Your task to perform on an android device: turn on bluetooth scan Image 0: 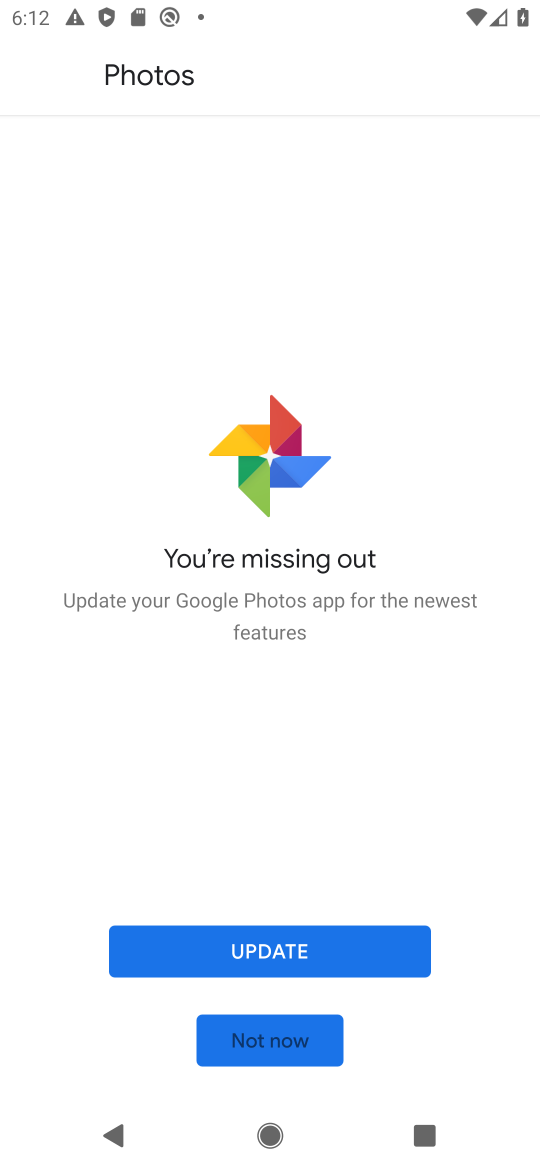
Step 0: press home button
Your task to perform on an android device: turn on bluetooth scan Image 1: 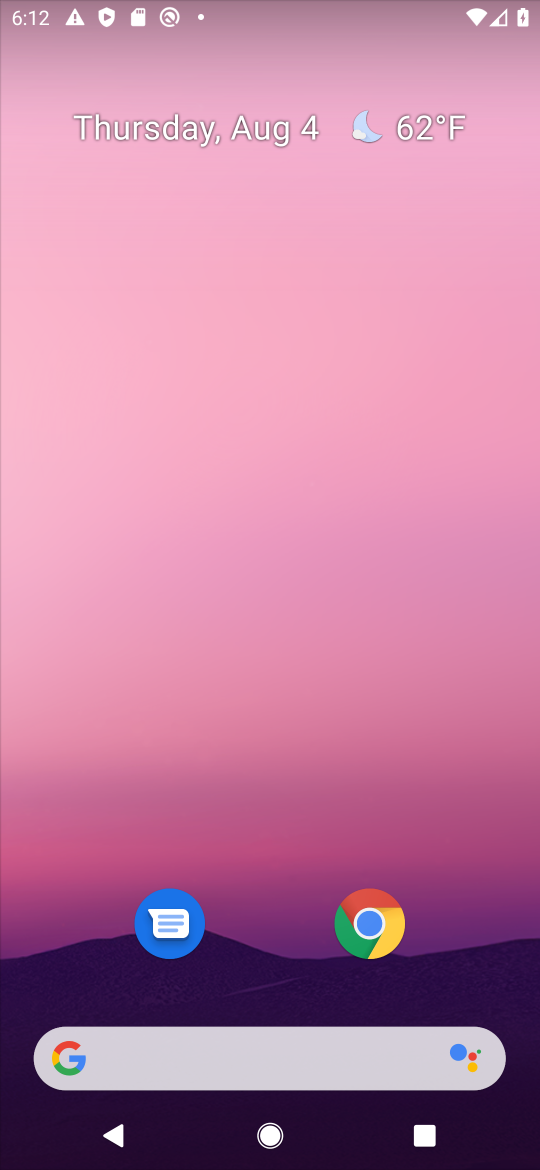
Step 1: drag from (460, 982) to (388, 317)
Your task to perform on an android device: turn on bluetooth scan Image 2: 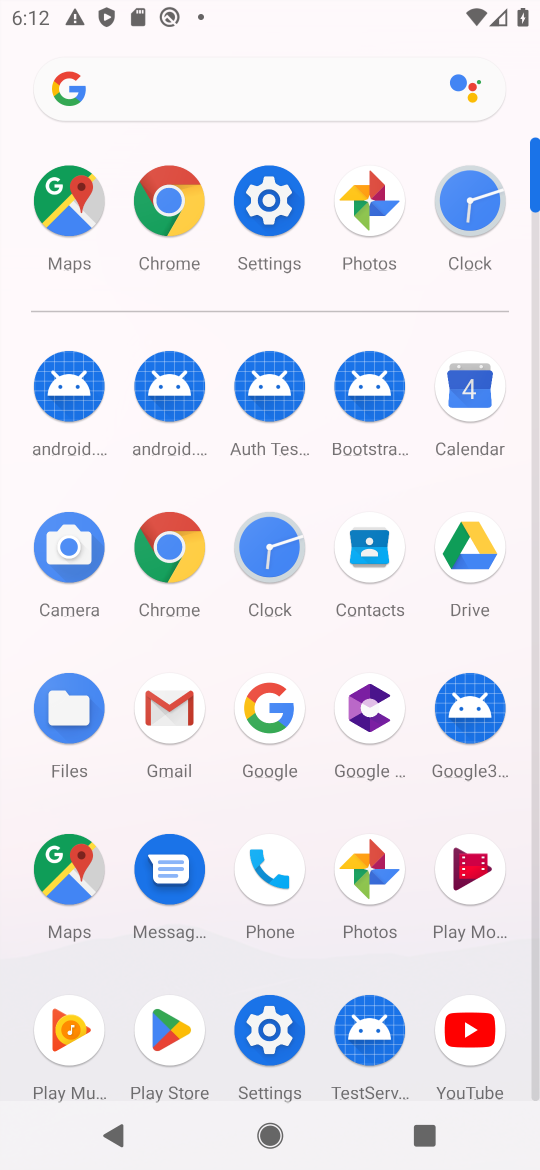
Step 2: click (287, 1019)
Your task to perform on an android device: turn on bluetooth scan Image 3: 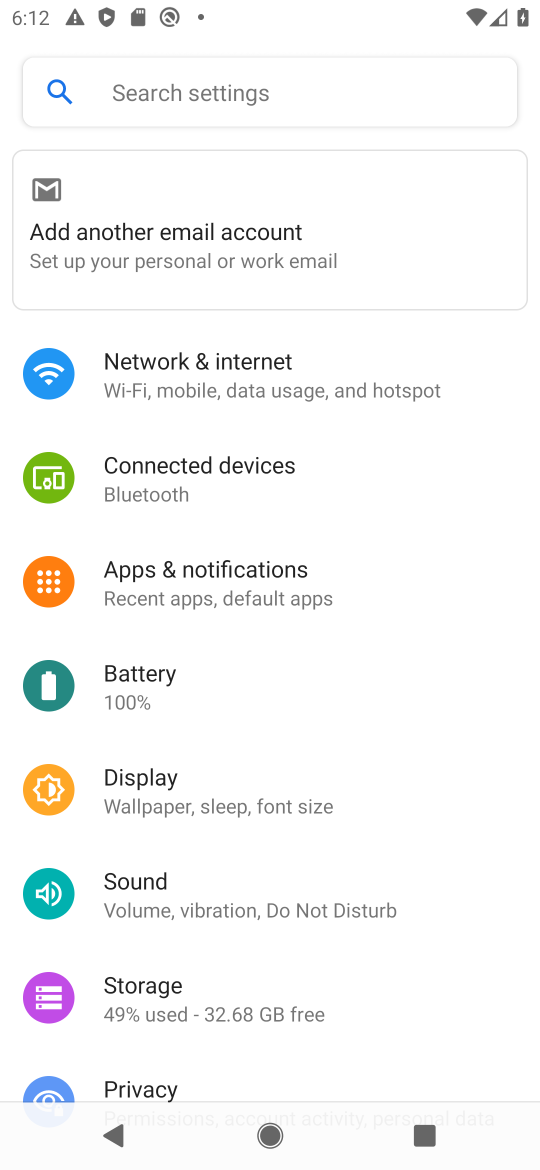
Step 3: drag from (373, 973) to (226, 526)
Your task to perform on an android device: turn on bluetooth scan Image 4: 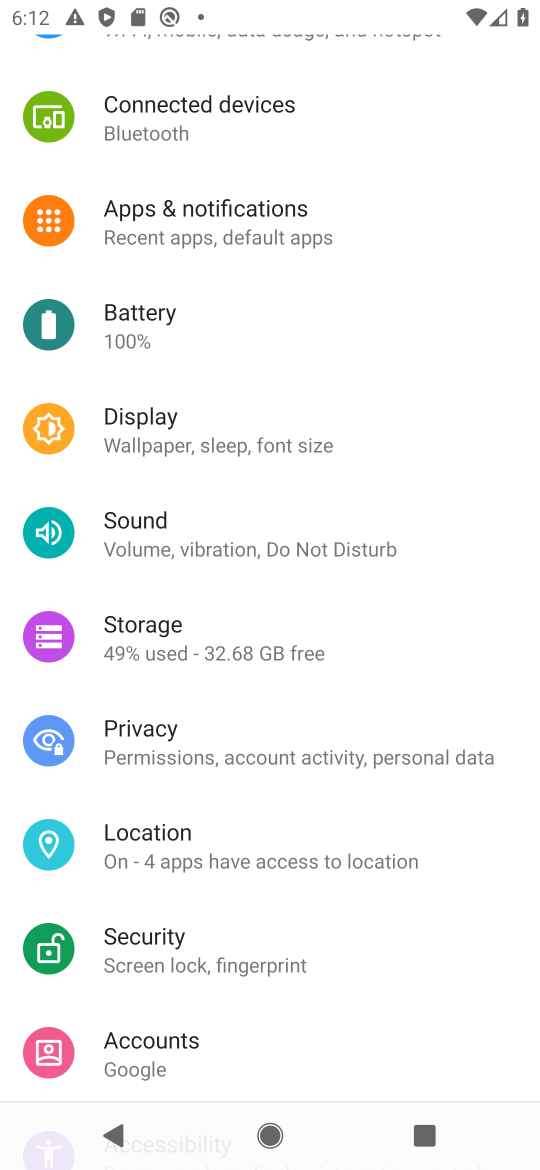
Step 4: click (331, 865)
Your task to perform on an android device: turn on bluetooth scan Image 5: 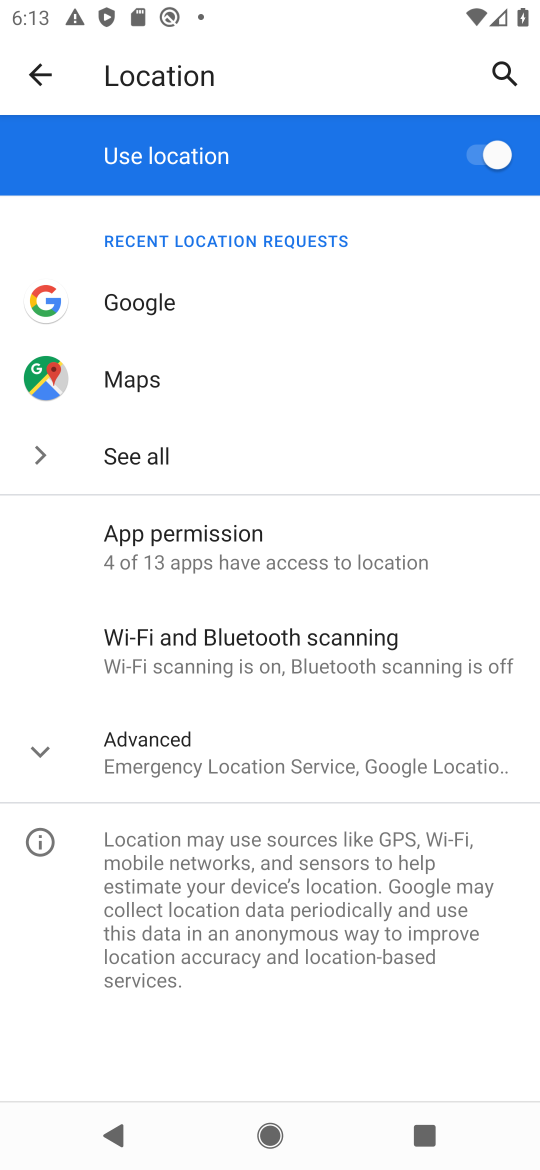
Step 5: click (244, 628)
Your task to perform on an android device: turn on bluetooth scan Image 6: 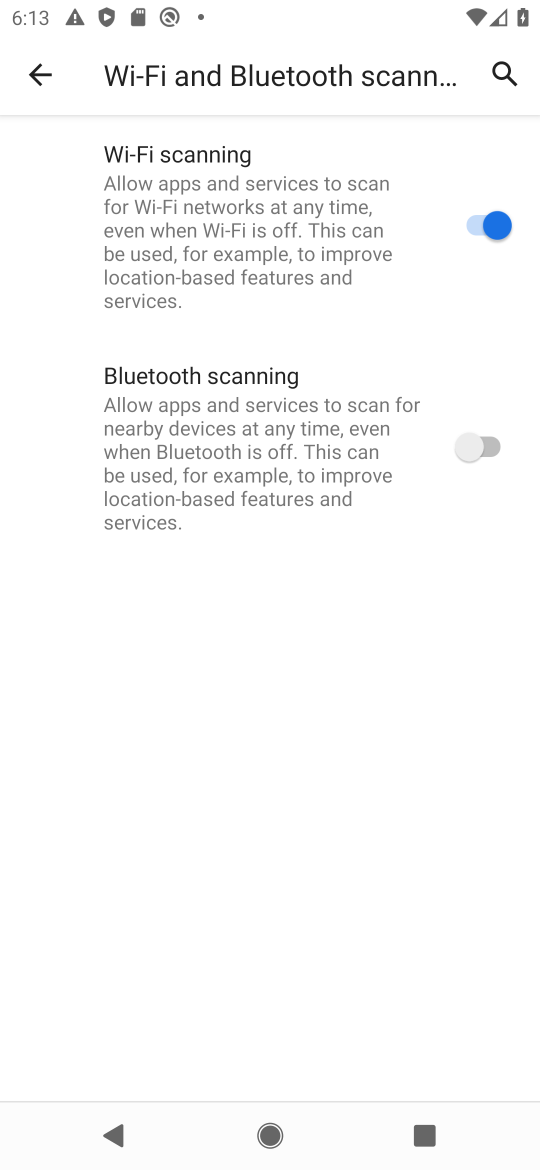
Step 6: click (485, 451)
Your task to perform on an android device: turn on bluetooth scan Image 7: 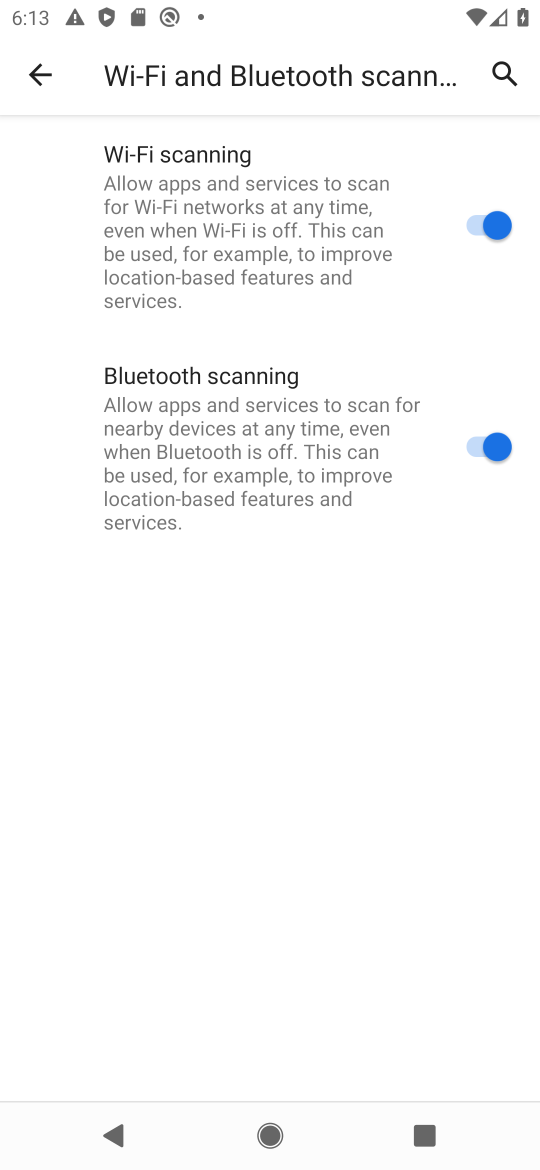
Step 7: task complete